Your task to perform on an android device: add a contact Image 0: 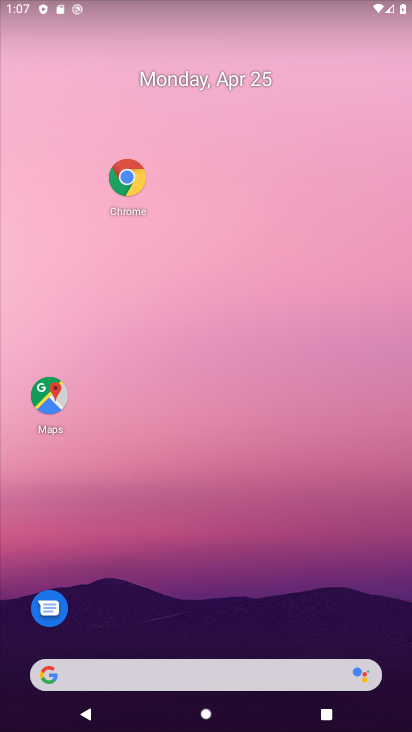
Step 0: drag from (240, 556) to (265, 24)
Your task to perform on an android device: add a contact Image 1: 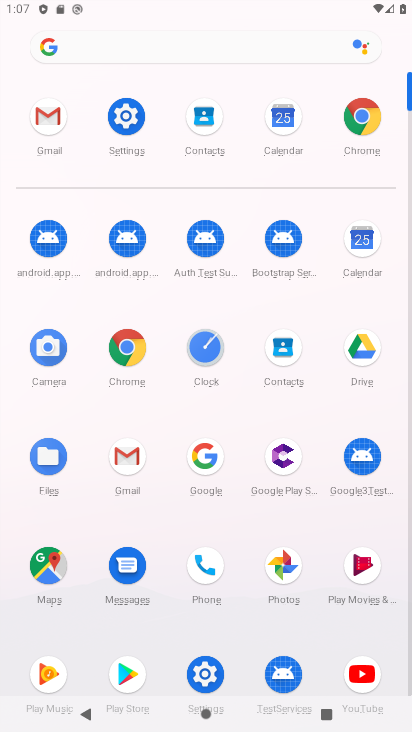
Step 1: click (286, 348)
Your task to perform on an android device: add a contact Image 2: 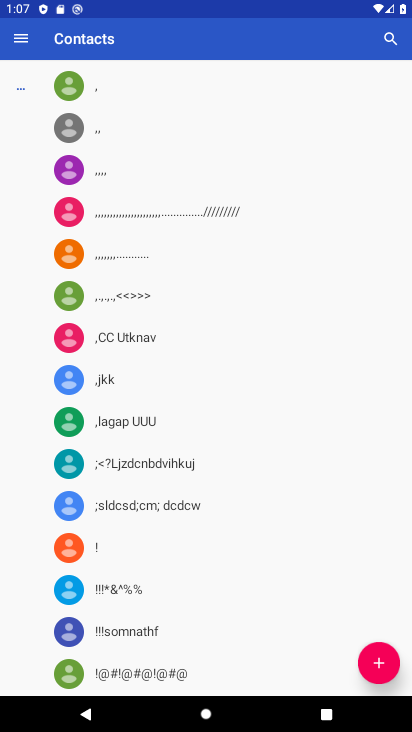
Step 2: click (365, 662)
Your task to perform on an android device: add a contact Image 3: 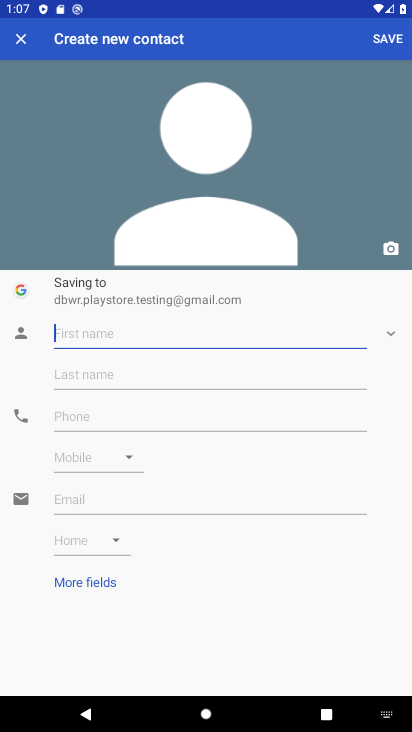
Step 3: click (221, 331)
Your task to perform on an android device: add a contact Image 4: 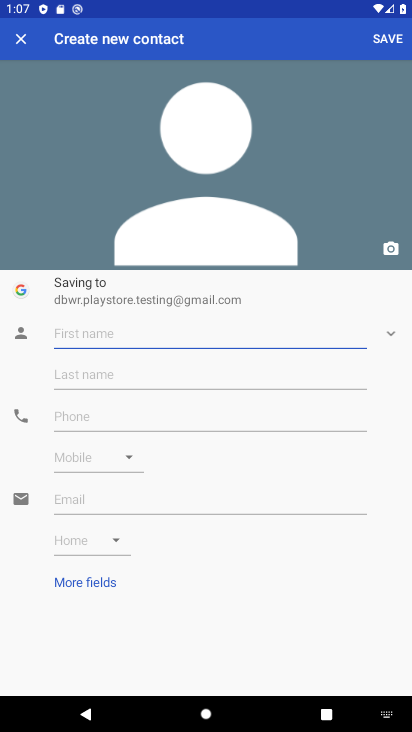
Step 4: type "essrwsrttu"
Your task to perform on an android device: add a contact Image 5: 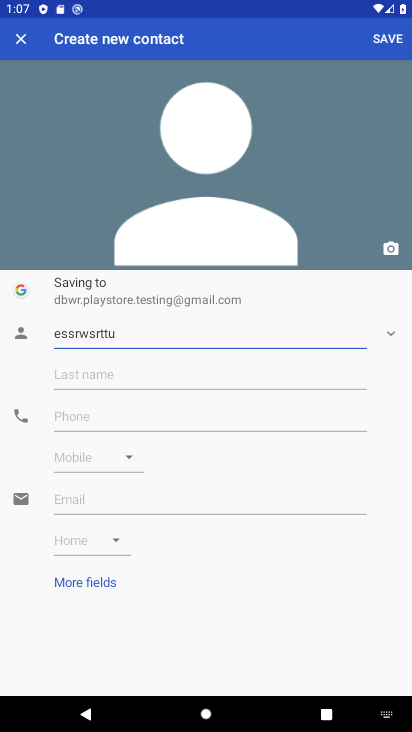
Step 5: click (372, 33)
Your task to perform on an android device: add a contact Image 6: 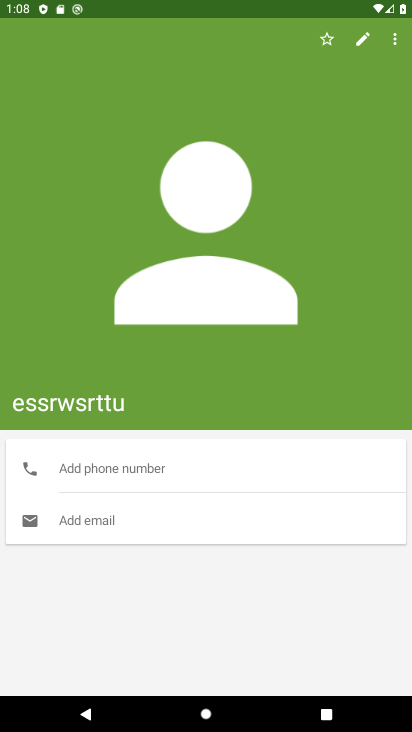
Step 6: task complete